Your task to perform on an android device: open the mobile data screen to see how much data has been used Image 0: 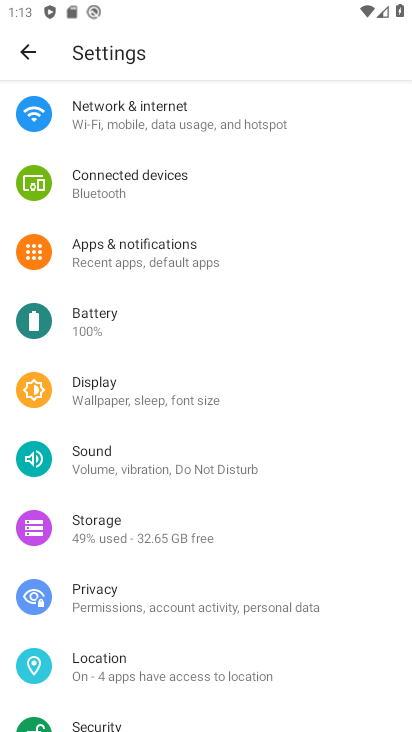
Step 0: drag from (213, 124) to (240, 535)
Your task to perform on an android device: open the mobile data screen to see how much data has been used Image 1: 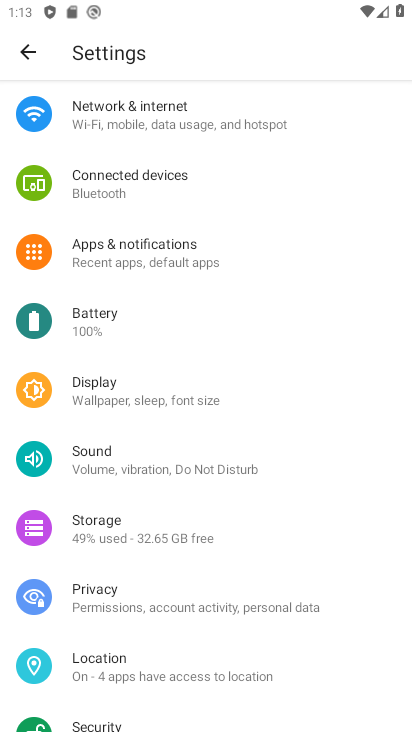
Step 1: click (95, 125)
Your task to perform on an android device: open the mobile data screen to see how much data has been used Image 2: 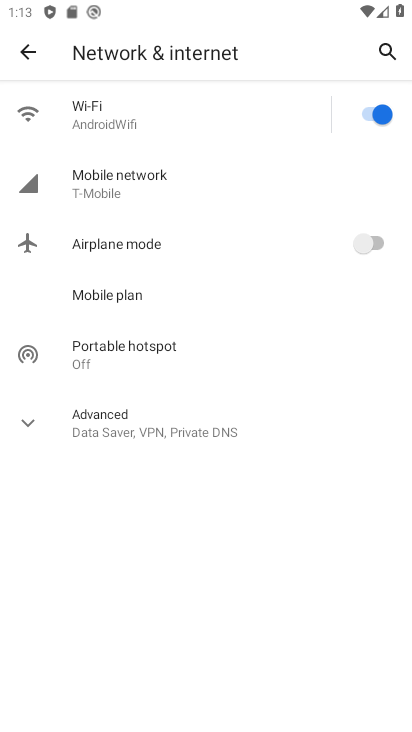
Step 2: click (117, 192)
Your task to perform on an android device: open the mobile data screen to see how much data has been used Image 3: 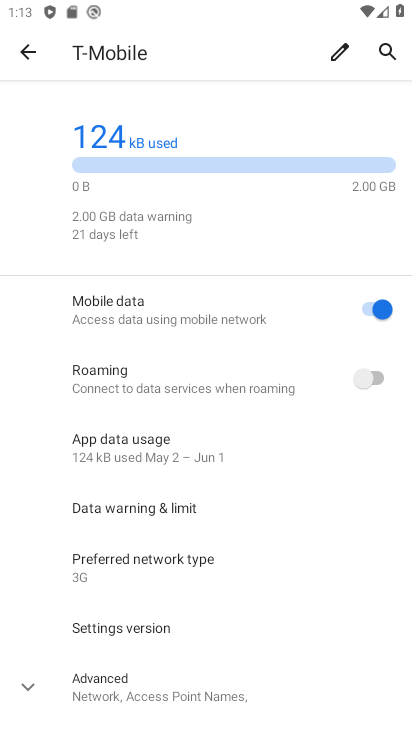
Step 3: click (105, 166)
Your task to perform on an android device: open the mobile data screen to see how much data has been used Image 4: 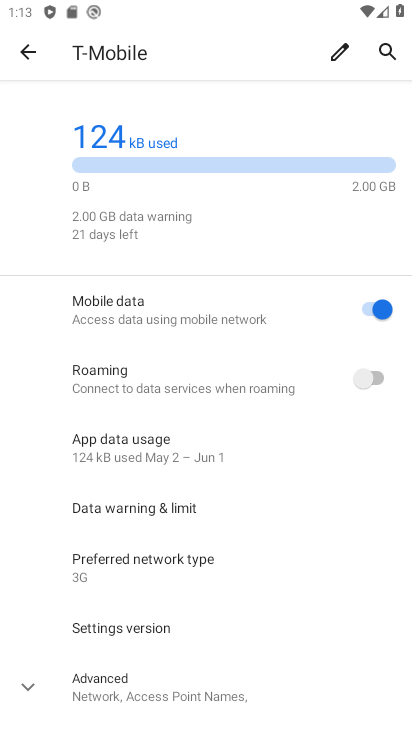
Step 4: click (108, 152)
Your task to perform on an android device: open the mobile data screen to see how much data has been used Image 5: 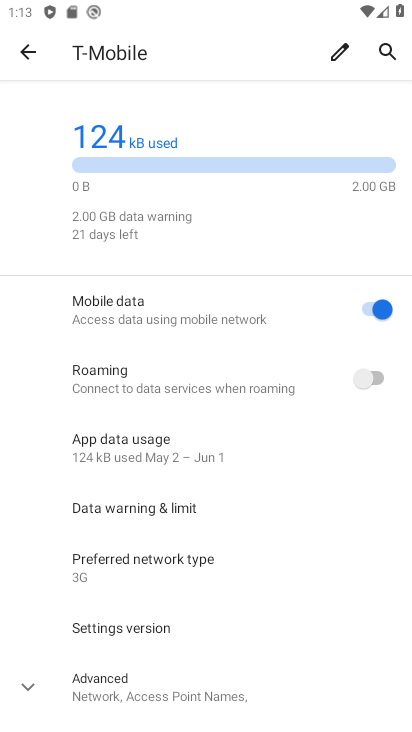
Step 5: click (114, 229)
Your task to perform on an android device: open the mobile data screen to see how much data has been used Image 6: 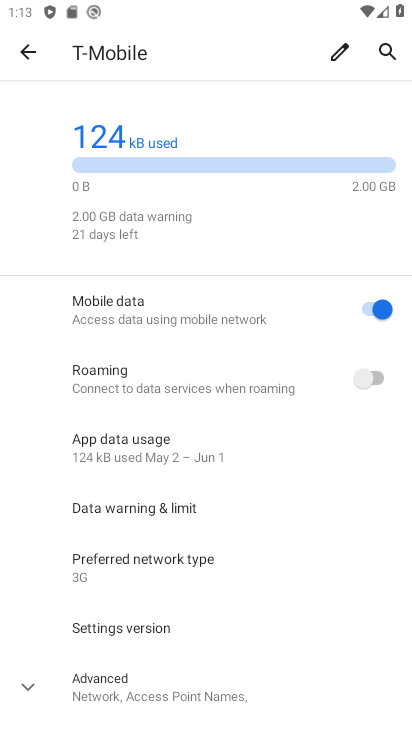
Step 6: click (114, 229)
Your task to perform on an android device: open the mobile data screen to see how much data has been used Image 7: 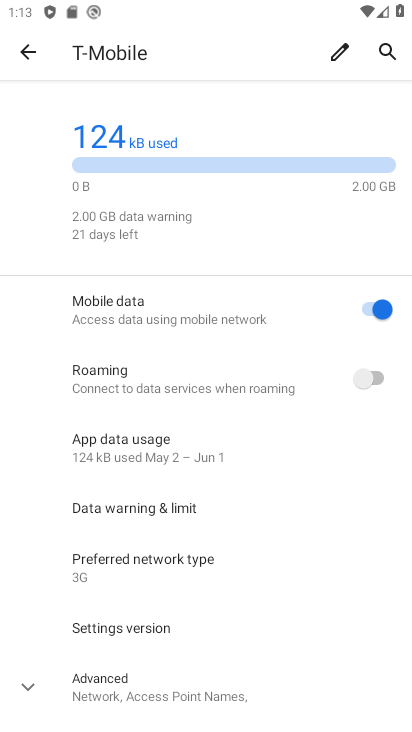
Step 7: click (126, 139)
Your task to perform on an android device: open the mobile data screen to see how much data has been used Image 8: 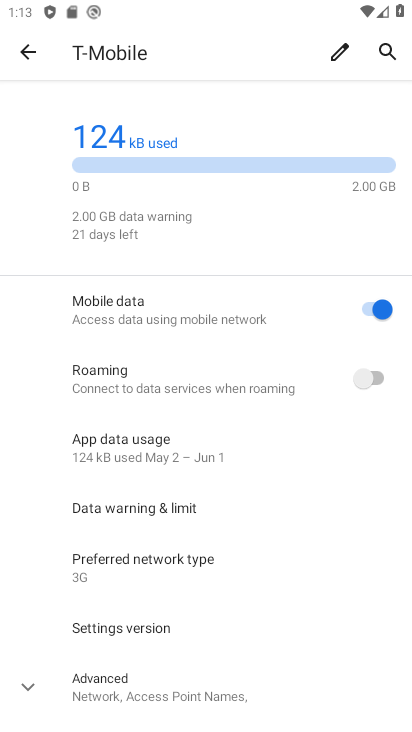
Step 8: task complete